Your task to perform on an android device: Open CNN.com Image 0: 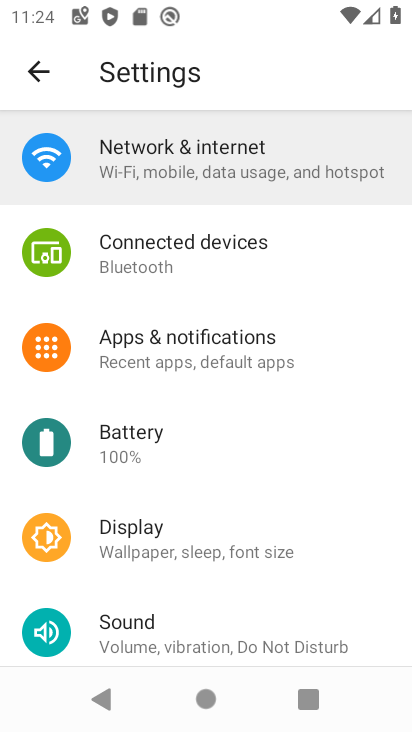
Step 0: press home button
Your task to perform on an android device: Open CNN.com Image 1: 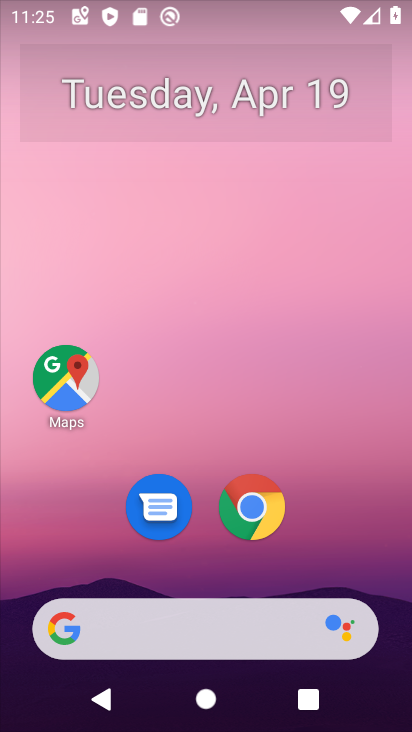
Step 1: click (252, 520)
Your task to perform on an android device: Open CNN.com Image 2: 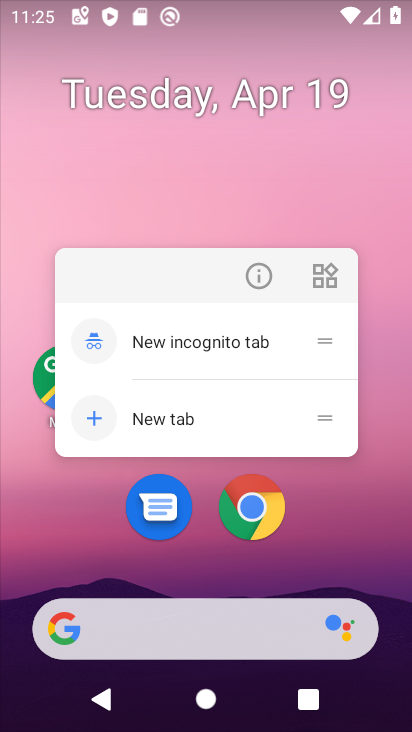
Step 2: click (253, 522)
Your task to perform on an android device: Open CNN.com Image 3: 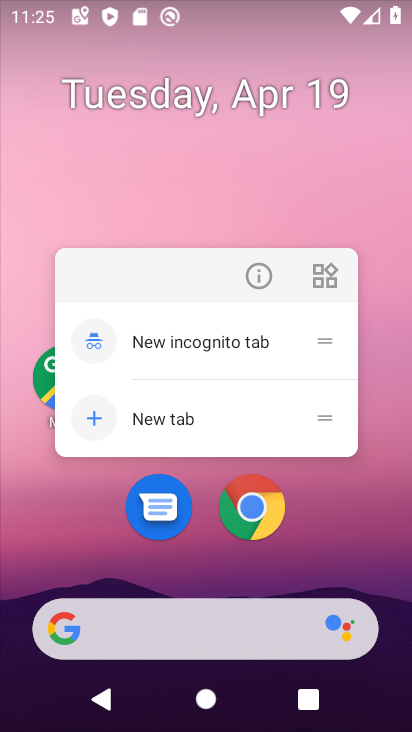
Step 3: drag from (386, 543) to (340, 184)
Your task to perform on an android device: Open CNN.com Image 4: 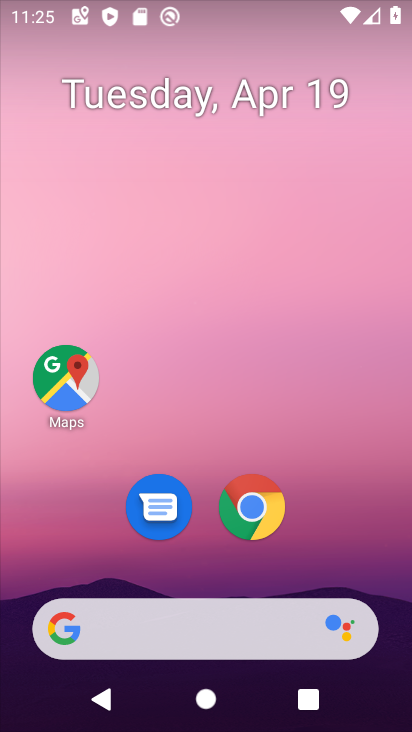
Step 4: drag from (379, 544) to (350, 200)
Your task to perform on an android device: Open CNN.com Image 5: 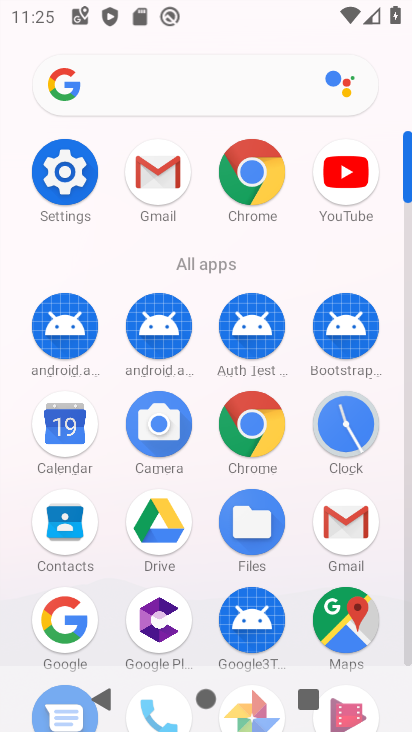
Step 5: click (265, 411)
Your task to perform on an android device: Open CNN.com Image 6: 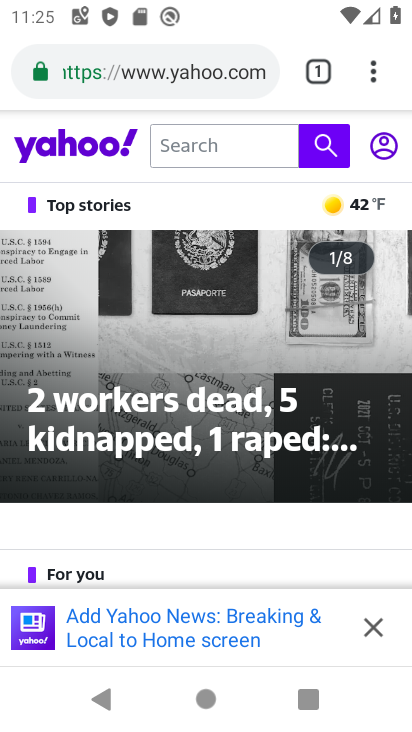
Step 6: click (312, 72)
Your task to perform on an android device: Open CNN.com Image 7: 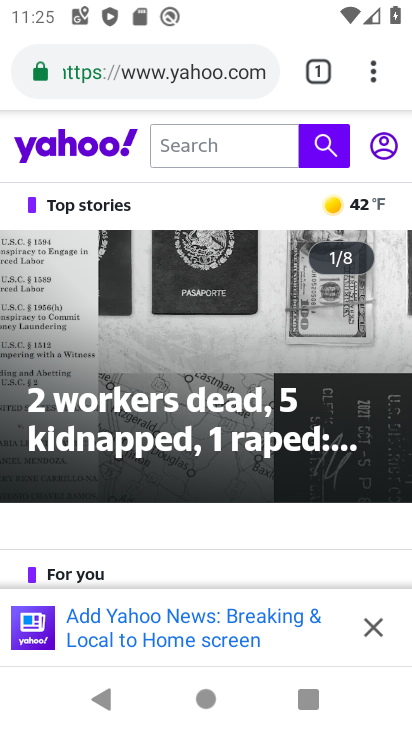
Step 7: click (318, 77)
Your task to perform on an android device: Open CNN.com Image 8: 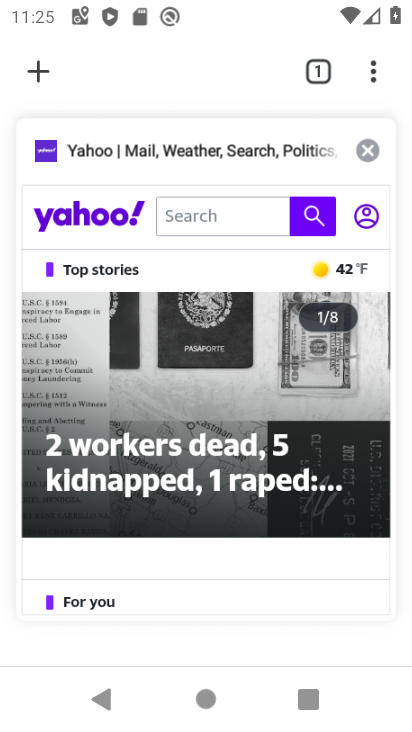
Step 8: click (43, 70)
Your task to perform on an android device: Open CNN.com Image 9: 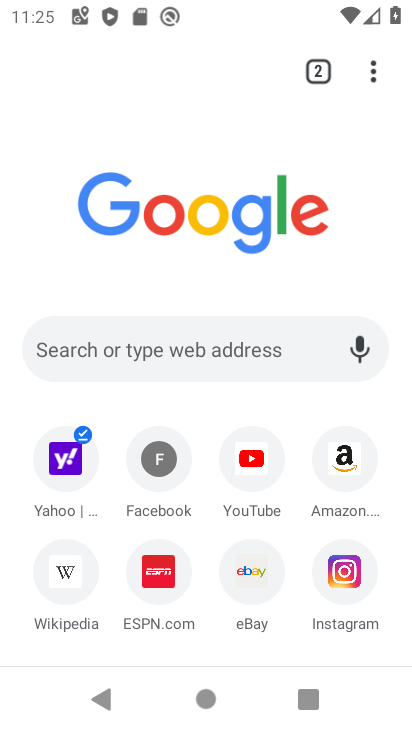
Step 9: click (212, 364)
Your task to perform on an android device: Open CNN.com Image 10: 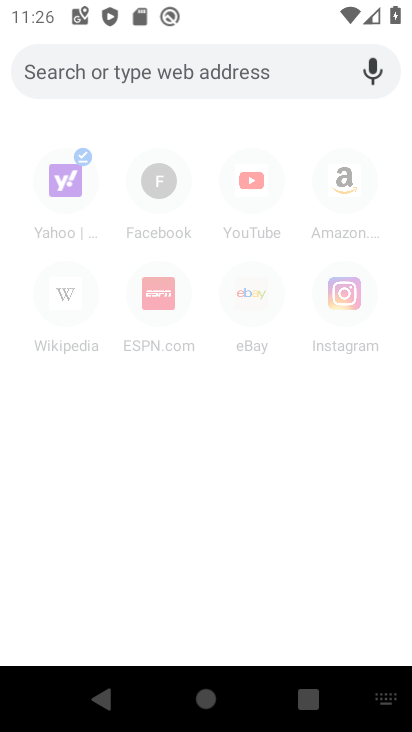
Step 10: type "cnn.com"
Your task to perform on an android device: Open CNN.com Image 11: 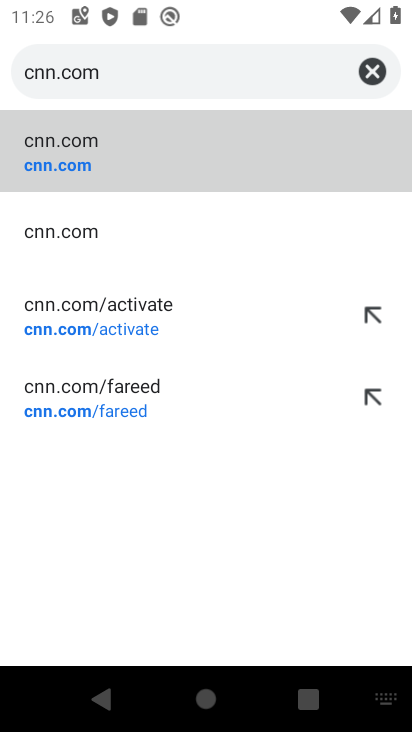
Step 11: click (88, 156)
Your task to perform on an android device: Open CNN.com Image 12: 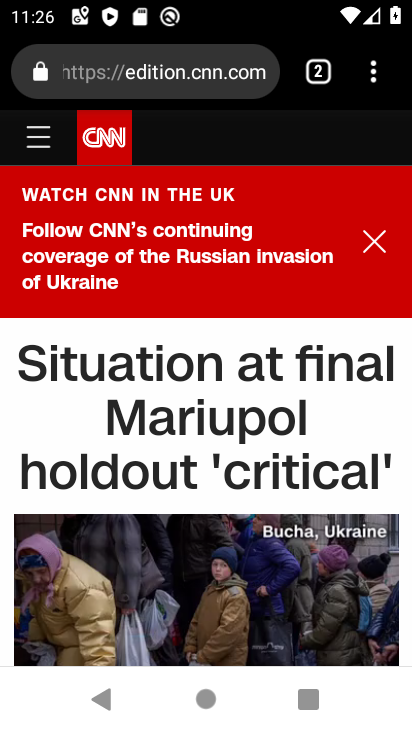
Step 12: task complete